Your task to perform on an android device: delete a single message in the gmail app Image 0: 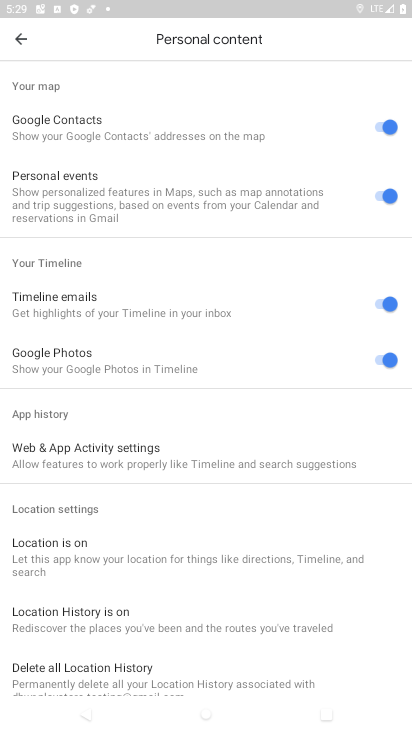
Step 0: press home button
Your task to perform on an android device: delete a single message in the gmail app Image 1: 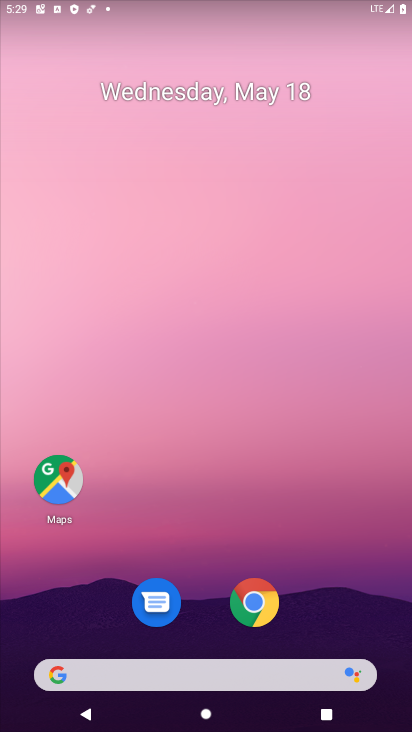
Step 1: drag from (346, 649) to (375, 32)
Your task to perform on an android device: delete a single message in the gmail app Image 2: 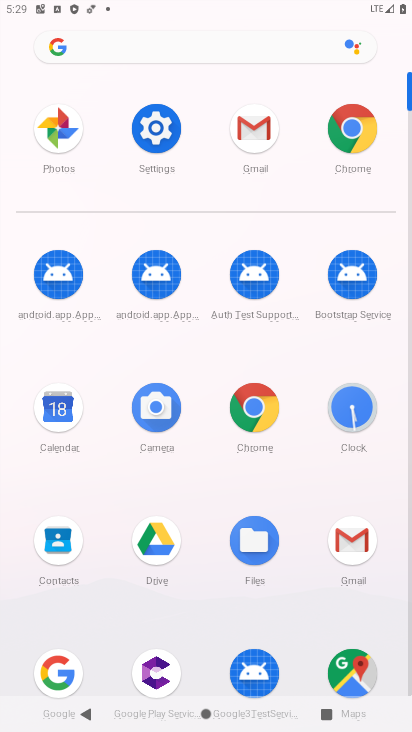
Step 2: click (346, 556)
Your task to perform on an android device: delete a single message in the gmail app Image 3: 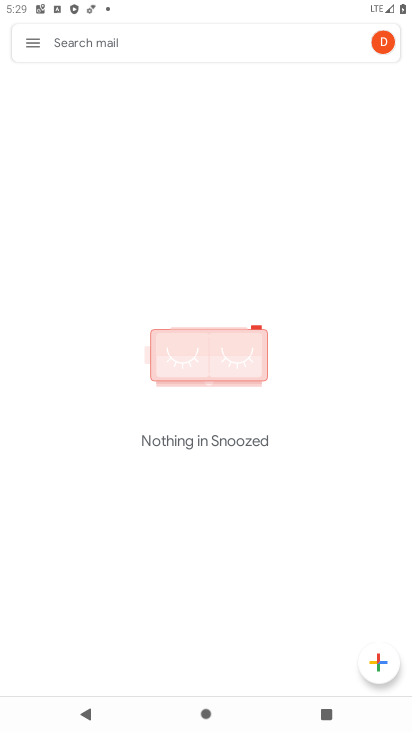
Step 3: click (33, 34)
Your task to perform on an android device: delete a single message in the gmail app Image 4: 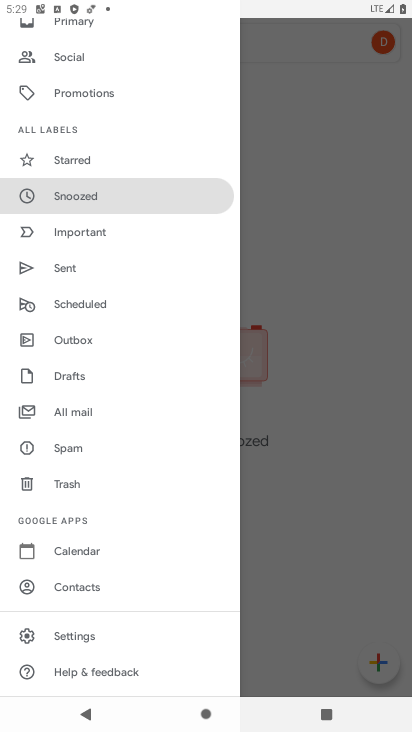
Step 4: drag from (99, 67) to (125, 350)
Your task to perform on an android device: delete a single message in the gmail app Image 5: 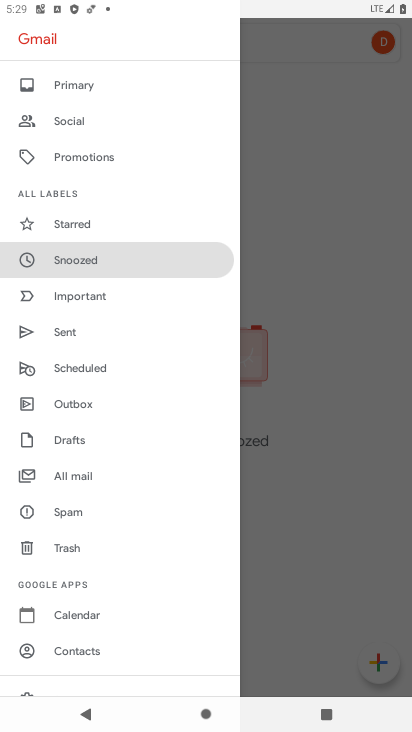
Step 5: click (88, 74)
Your task to perform on an android device: delete a single message in the gmail app Image 6: 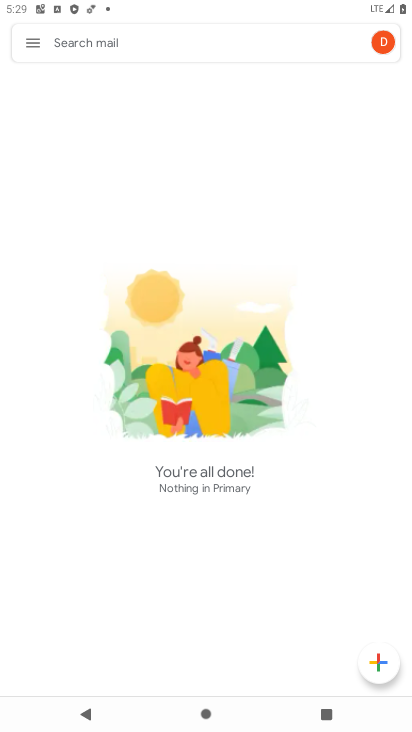
Step 6: task complete